Your task to perform on an android device: check out phone information Image 0: 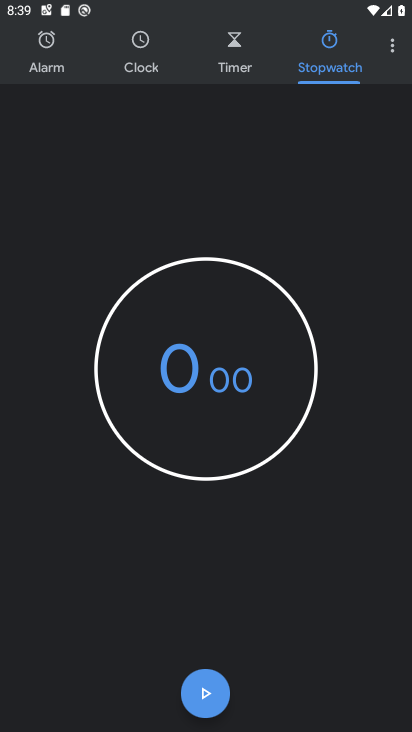
Step 0: press home button
Your task to perform on an android device: check out phone information Image 1: 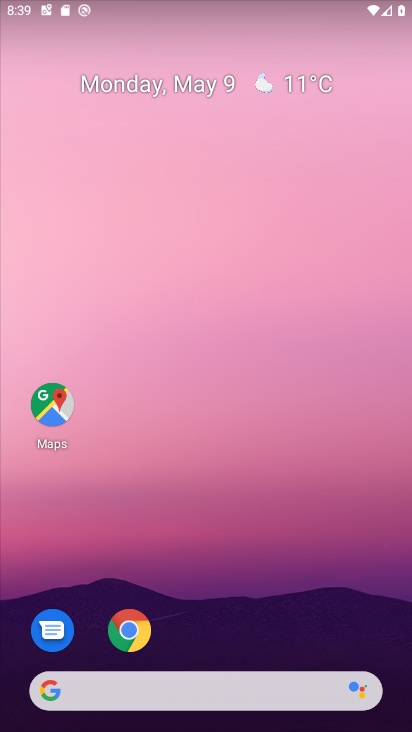
Step 1: drag from (160, 590) to (114, 155)
Your task to perform on an android device: check out phone information Image 2: 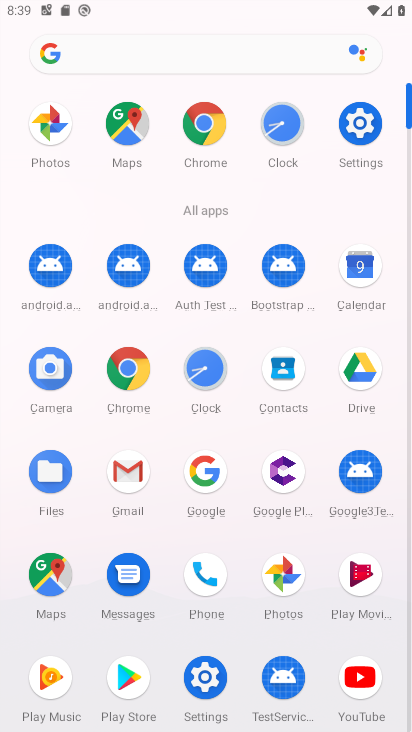
Step 2: click (188, 577)
Your task to perform on an android device: check out phone information Image 3: 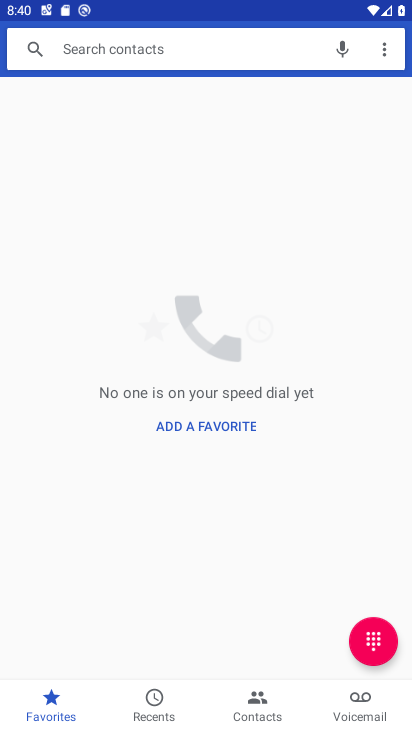
Step 3: click (382, 55)
Your task to perform on an android device: check out phone information Image 4: 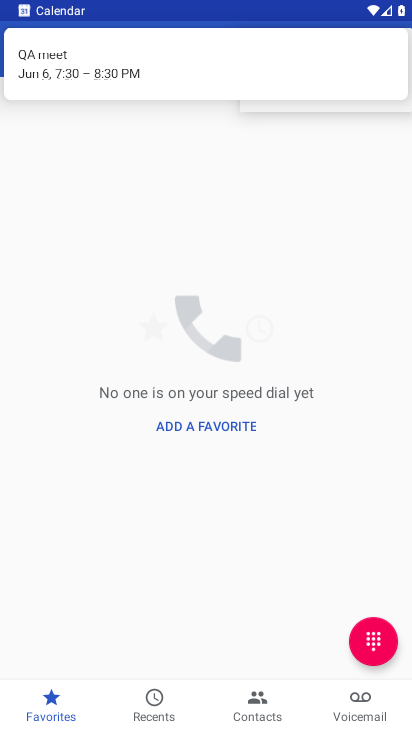
Step 4: click (299, 106)
Your task to perform on an android device: check out phone information Image 5: 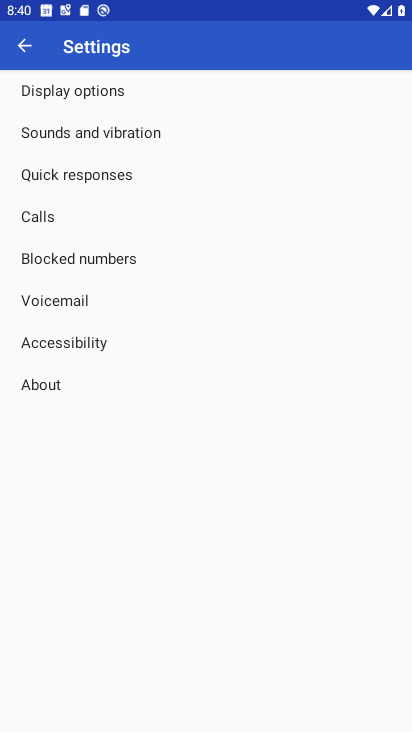
Step 5: click (83, 380)
Your task to perform on an android device: check out phone information Image 6: 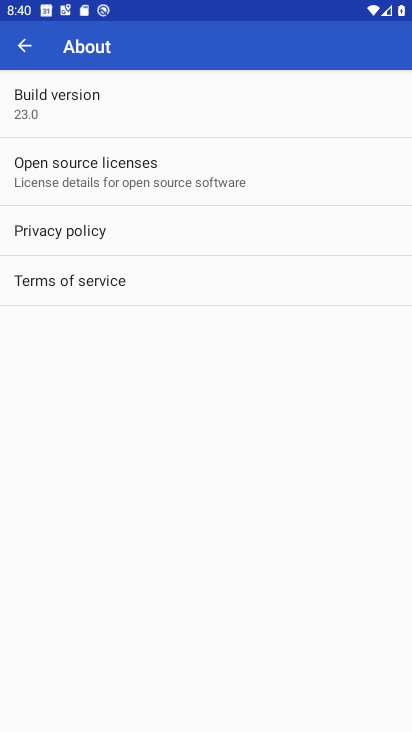
Step 6: task complete